Your task to perform on an android device: show emergency info Image 0: 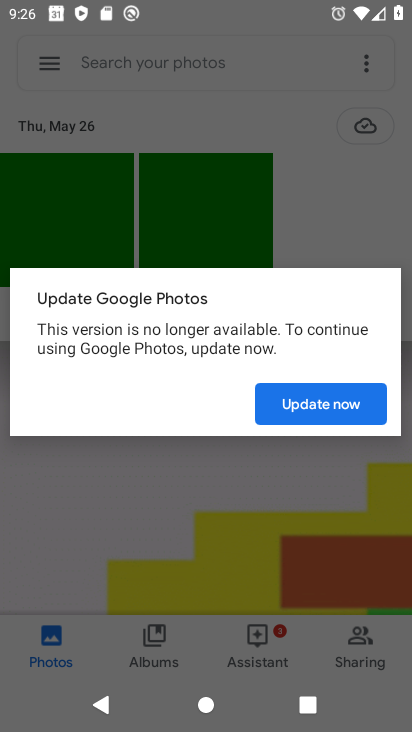
Step 0: press home button
Your task to perform on an android device: show emergency info Image 1: 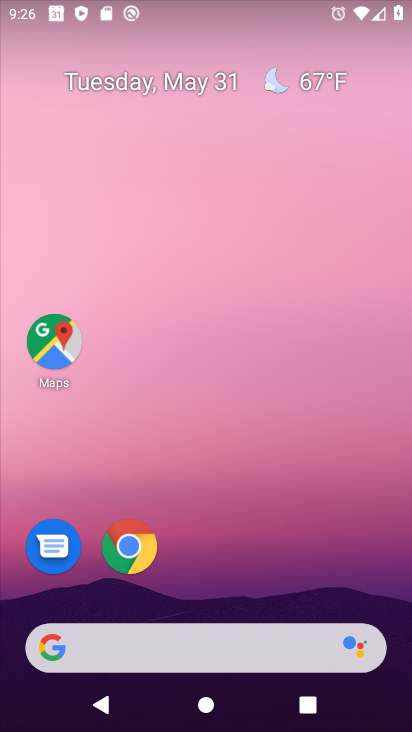
Step 1: drag from (197, 575) to (183, 185)
Your task to perform on an android device: show emergency info Image 2: 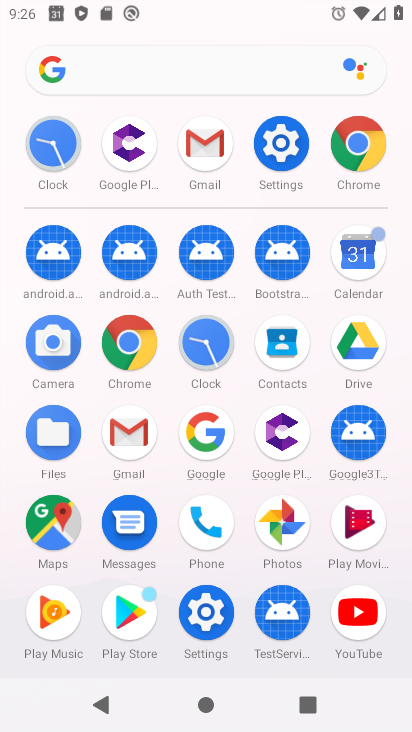
Step 2: click (289, 154)
Your task to perform on an android device: show emergency info Image 3: 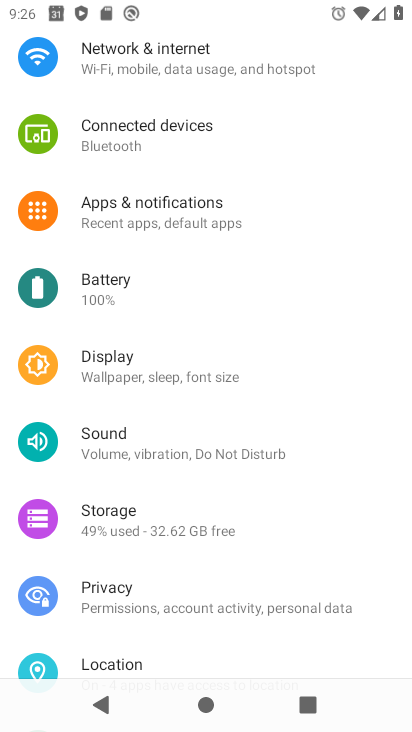
Step 3: drag from (220, 561) to (217, 303)
Your task to perform on an android device: show emergency info Image 4: 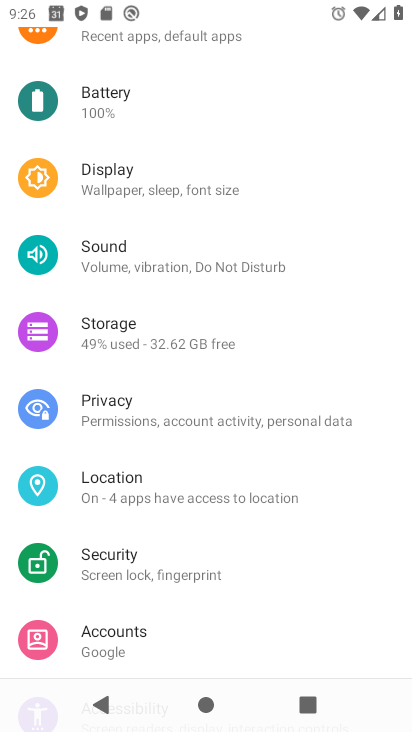
Step 4: drag from (150, 601) to (165, 240)
Your task to perform on an android device: show emergency info Image 5: 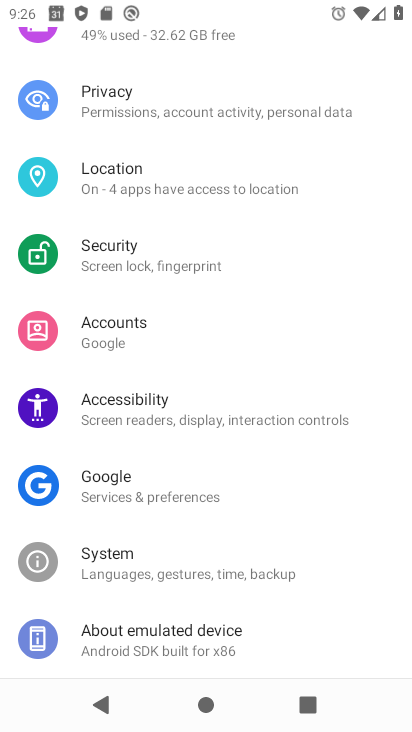
Step 5: drag from (176, 595) to (189, 299)
Your task to perform on an android device: show emergency info Image 6: 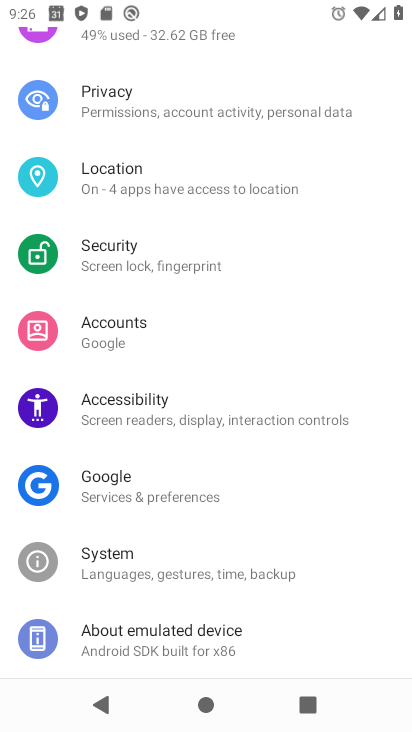
Step 6: click (170, 654)
Your task to perform on an android device: show emergency info Image 7: 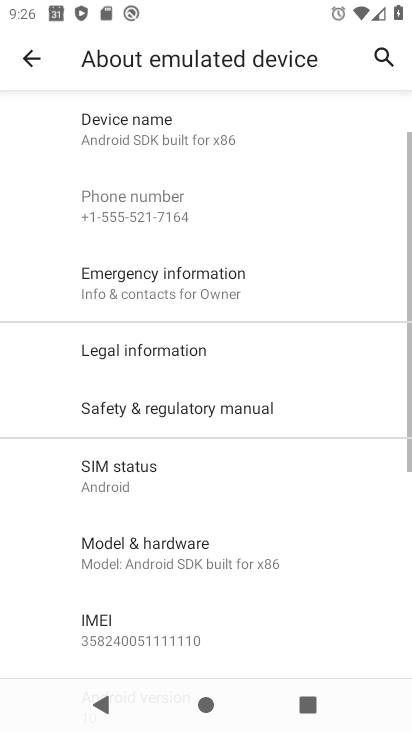
Step 7: click (184, 286)
Your task to perform on an android device: show emergency info Image 8: 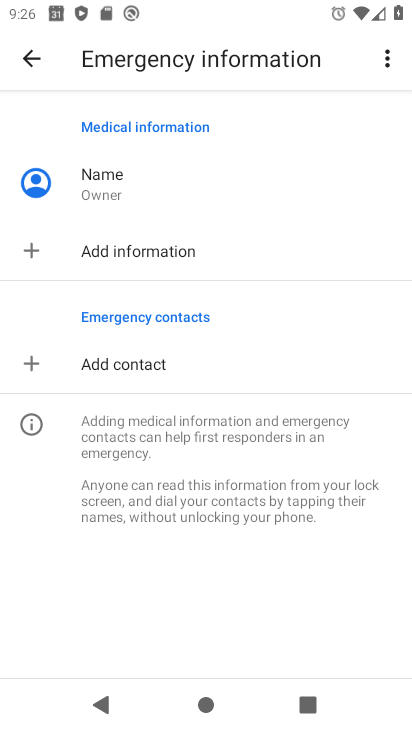
Step 8: task complete